Your task to perform on an android device: Do I have any events tomorrow? Image 0: 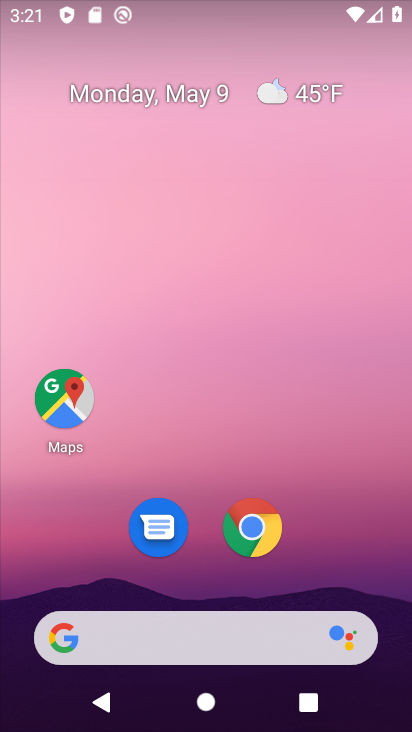
Step 0: drag from (322, 532) to (242, 66)
Your task to perform on an android device: Do I have any events tomorrow? Image 1: 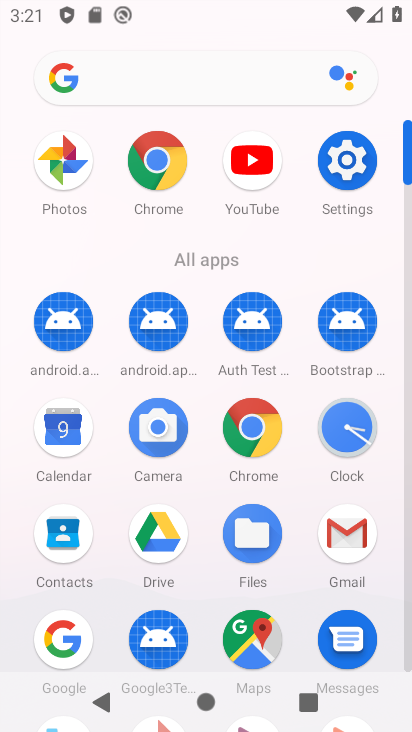
Step 1: click (52, 444)
Your task to perform on an android device: Do I have any events tomorrow? Image 2: 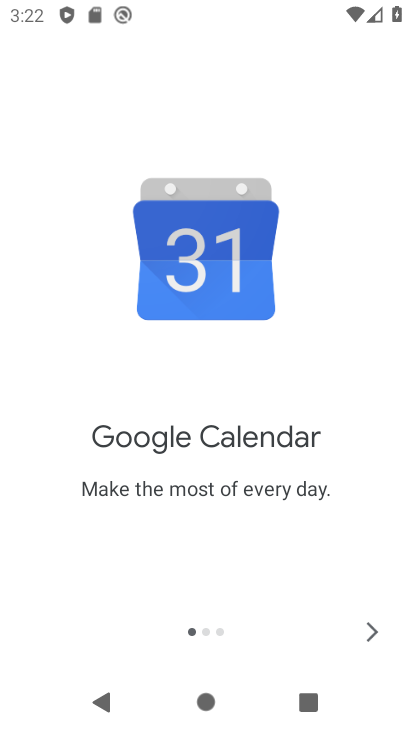
Step 2: click (363, 633)
Your task to perform on an android device: Do I have any events tomorrow? Image 3: 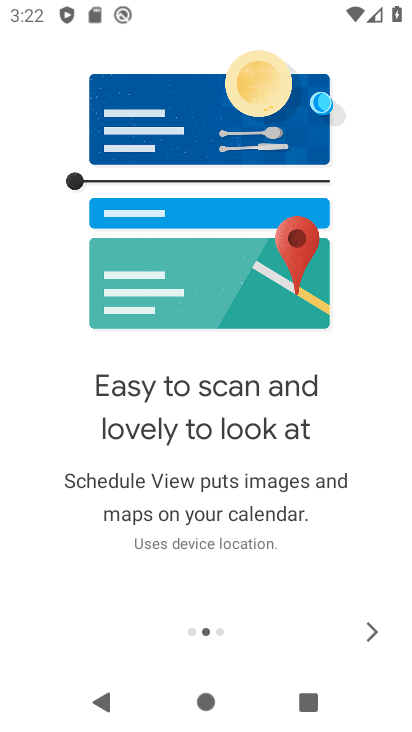
Step 3: click (363, 633)
Your task to perform on an android device: Do I have any events tomorrow? Image 4: 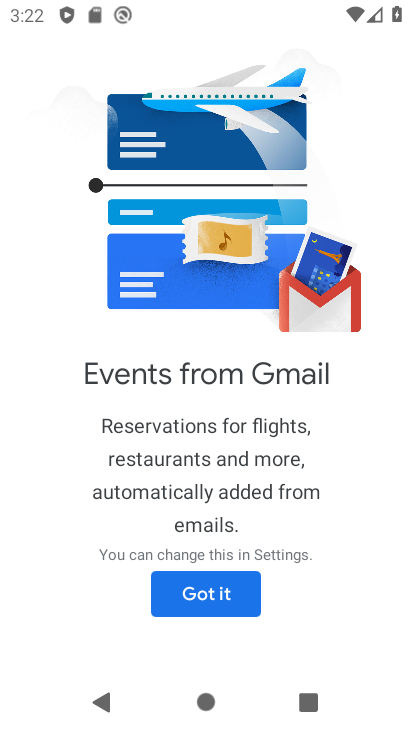
Step 4: click (226, 594)
Your task to perform on an android device: Do I have any events tomorrow? Image 5: 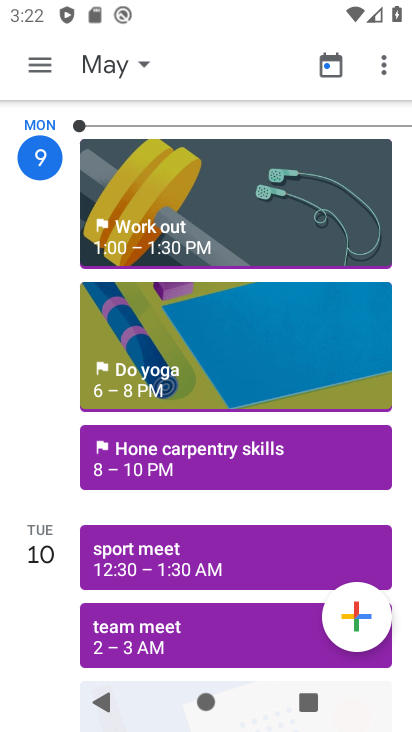
Step 5: click (40, 72)
Your task to perform on an android device: Do I have any events tomorrow? Image 6: 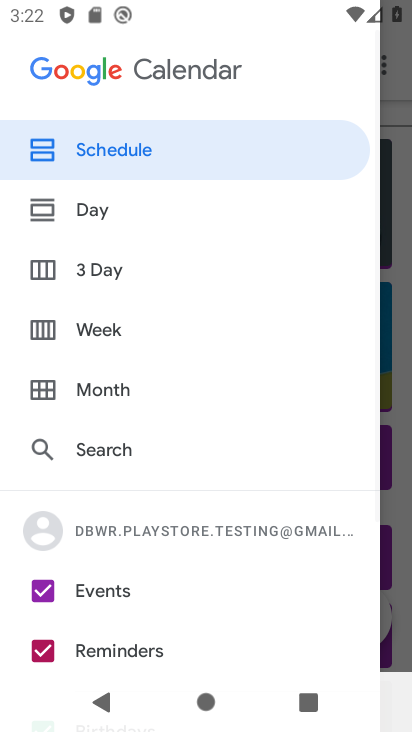
Step 6: click (118, 164)
Your task to perform on an android device: Do I have any events tomorrow? Image 7: 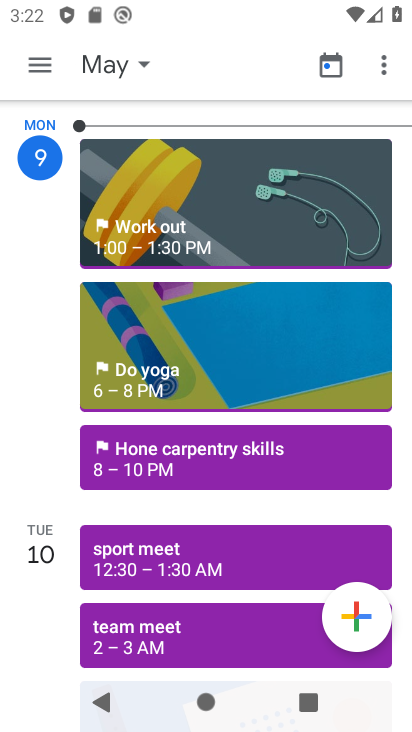
Step 7: click (135, 62)
Your task to perform on an android device: Do I have any events tomorrow? Image 8: 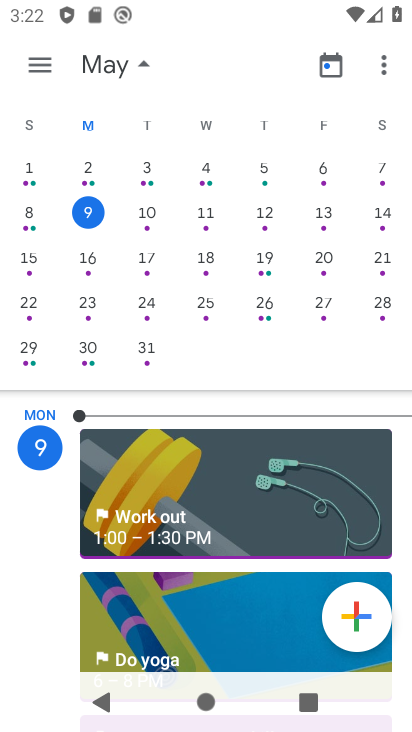
Step 8: click (152, 212)
Your task to perform on an android device: Do I have any events tomorrow? Image 9: 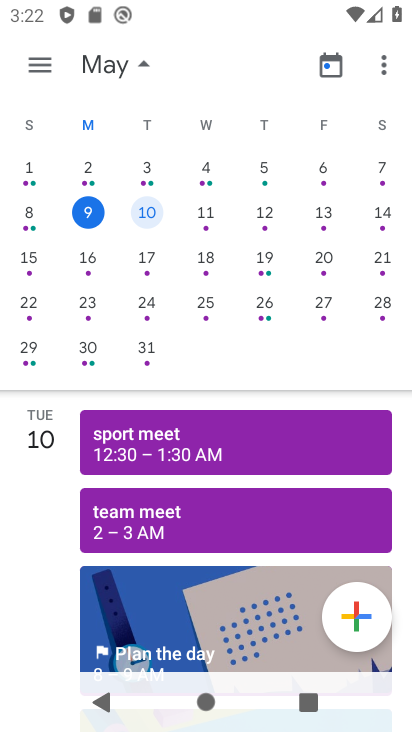
Step 9: click (139, 72)
Your task to perform on an android device: Do I have any events tomorrow? Image 10: 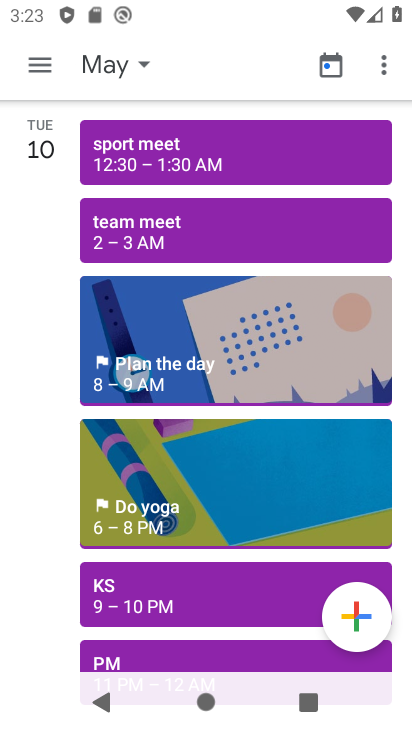
Step 10: task complete